Your task to perform on an android device: change the upload size in google photos Image 0: 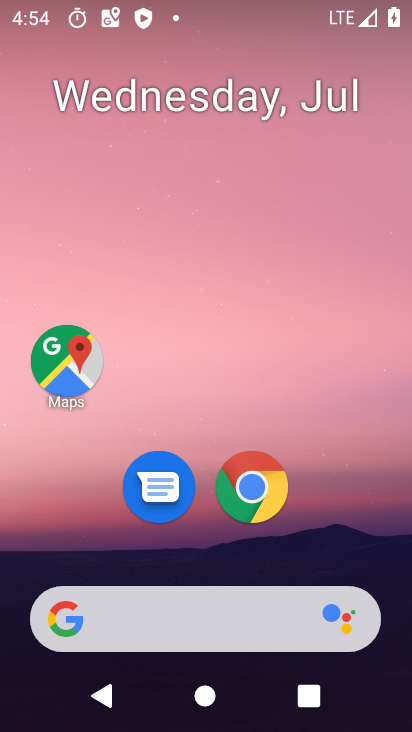
Step 0: drag from (180, 588) to (220, 72)
Your task to perform on an android device: change the upload size in google photos Image 1: 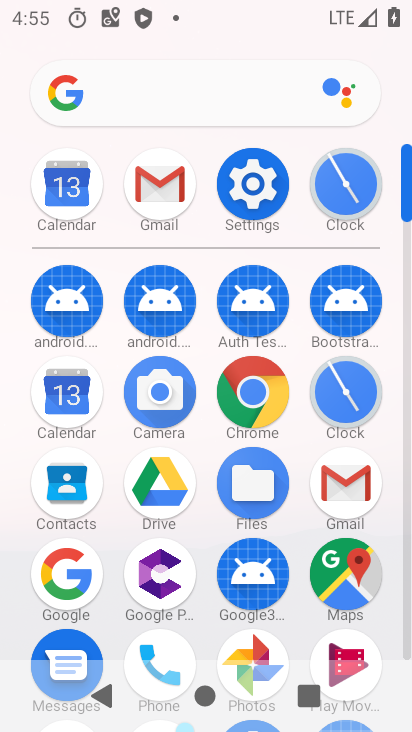
Step 1: click (247, 644)
Your task to perform on an android device: change the upload size in google photos Image 2: 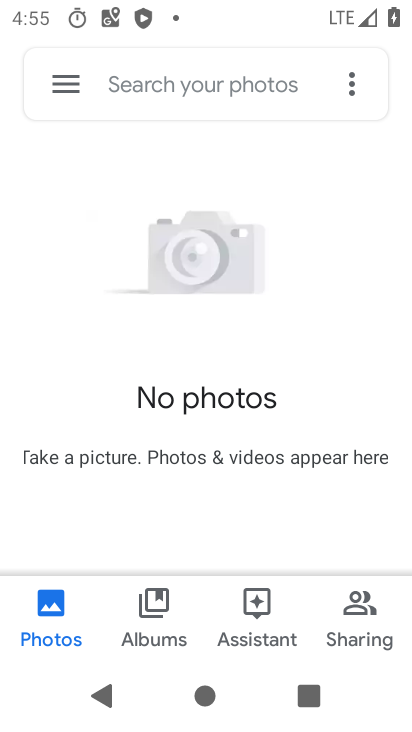
Step 2: click (46, 100)
Your task to perform on an android device: change the upload size in google photos Image 3: 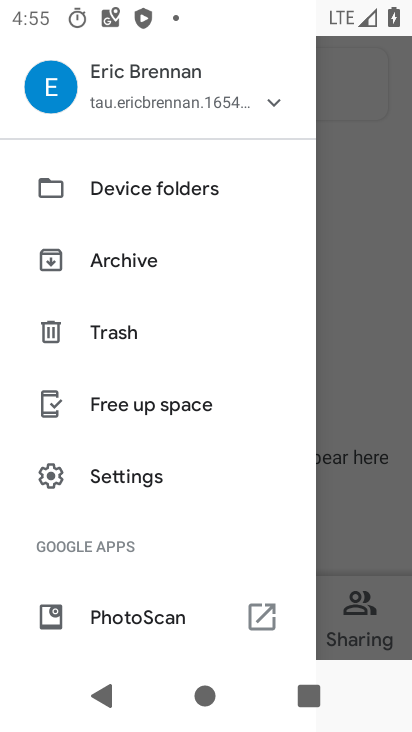
Step 3: click (142, 485)
Your task to perform on an android device: change the upload size in google photos Image 4: 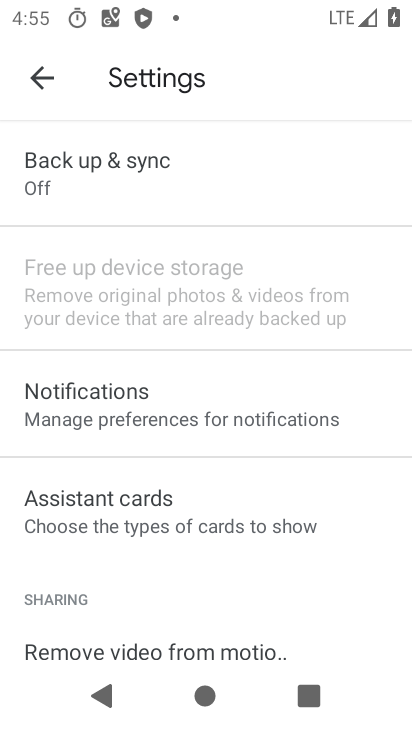
Step 4: drag from (220, 204) to (272, 212)
Your task to perform on an android device: change the upload size in google photos Image 5: 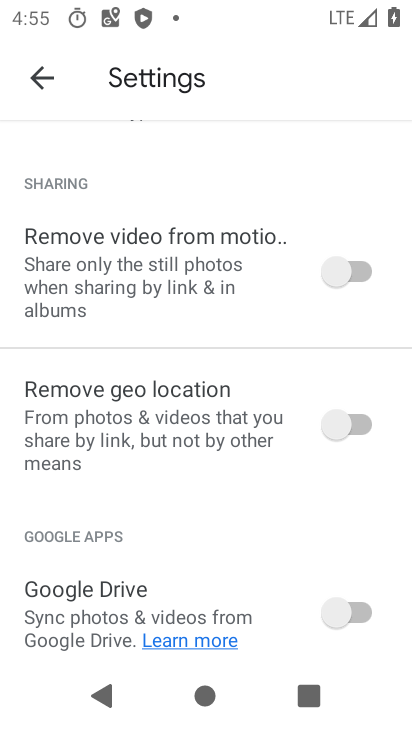
Step 5: drag from (272, 232) to (207, 657)
Your task to perform on an android device: change the upload size in google photos Image 6: 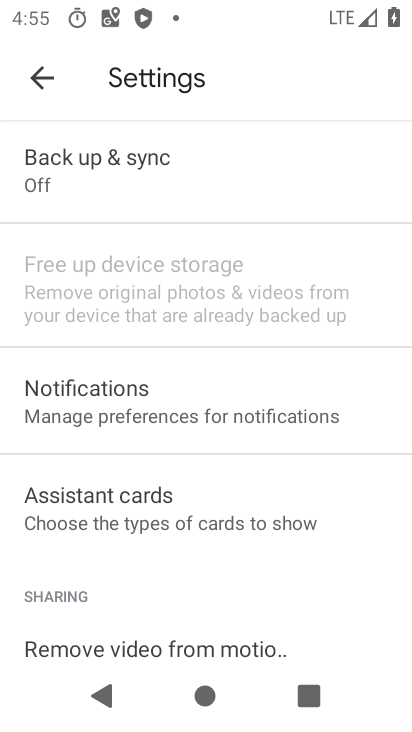
Step 6: drag from (188, 563) to (283, 58)
Your task to perform on an android device: change the upload size in google photos Image 7: 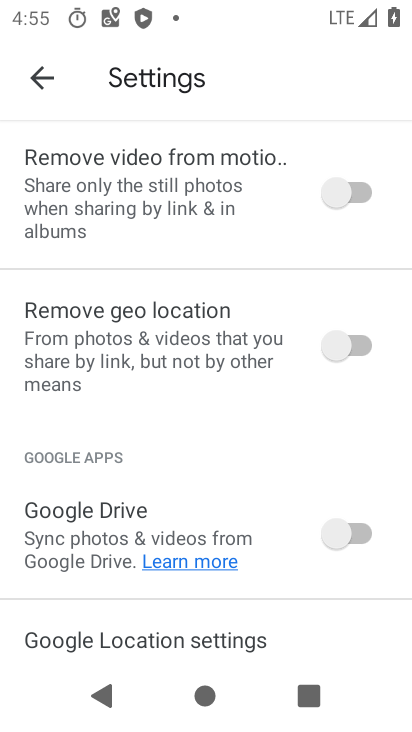
Step 7: drag from (156, 497) to (241, 13)
Your task to perform on an android device: change the upload size in google photos Image 8: 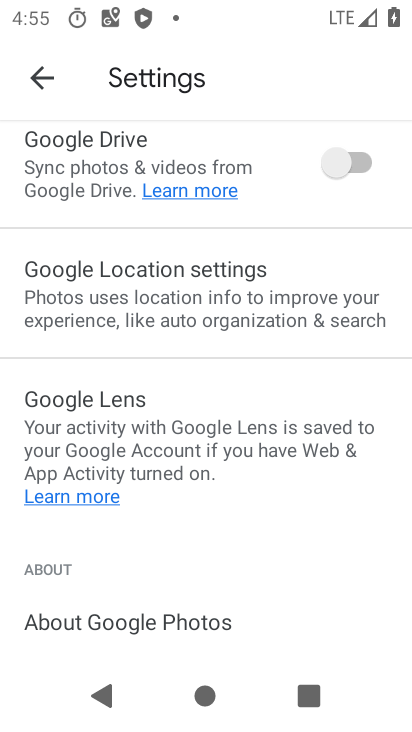
Step 8: drag from (185, 535) to (260, 16)
Your task to perform on an android device: change the upload size in google photos Image 9: 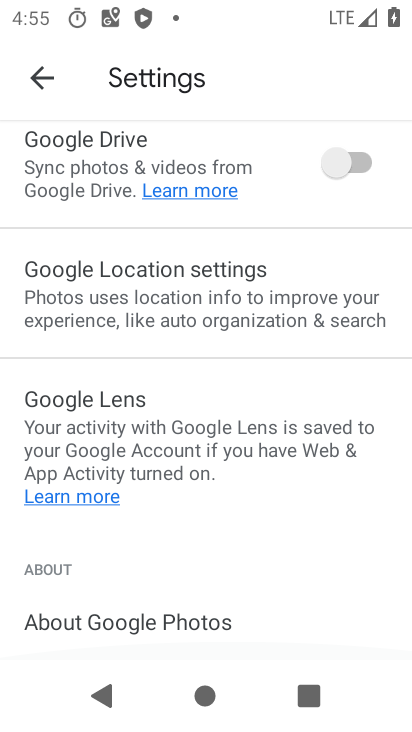
Step 9: click (49, 63)
Your task to perform on an android device: change the upload size in google photos Image 10: 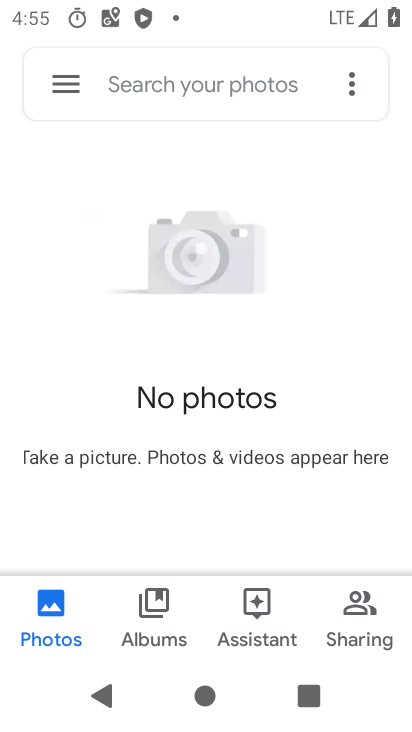
Step 10: click (64, 84)
Your task to perform on an android device: change the upload size in google photos Image 11: 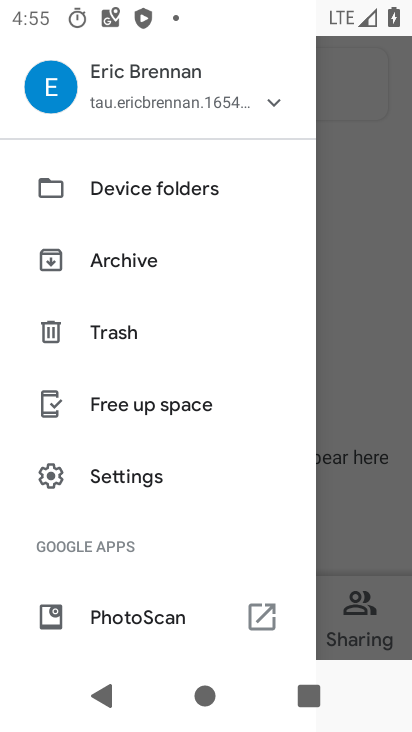
Step 11: click (134, 484)
Your task to perform on an android device: change the upload size in google photos Image 12: 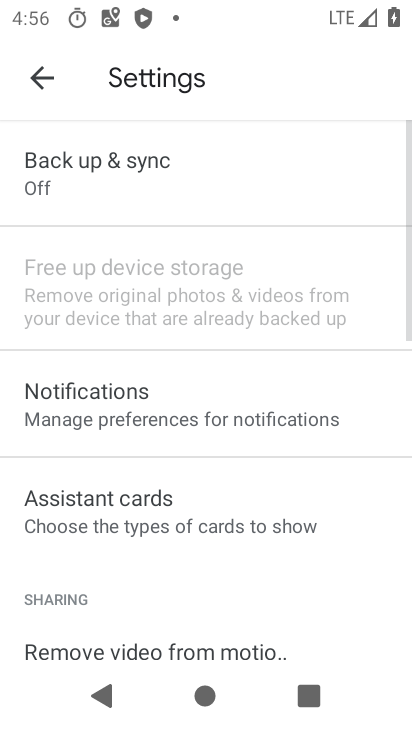
Step 12: drag from (148, 233) to (149, 665)
Your task to perform on an android device: change the upload size in google photos Image 13: 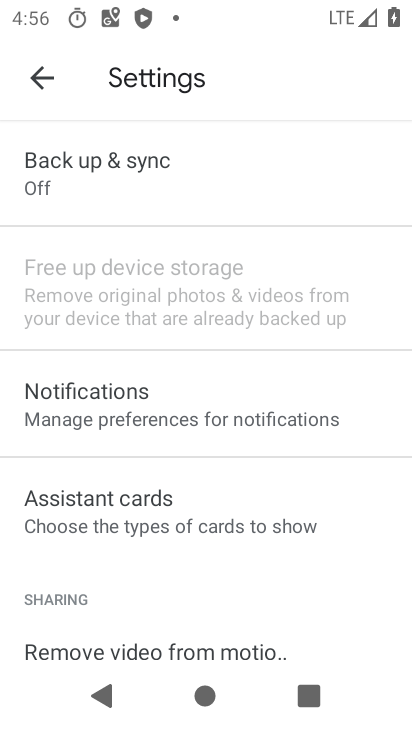
Step 13: drag from (188, 236) to (153, 649)
Your task to perform on an android device: change the upload size in google photos Image 14: 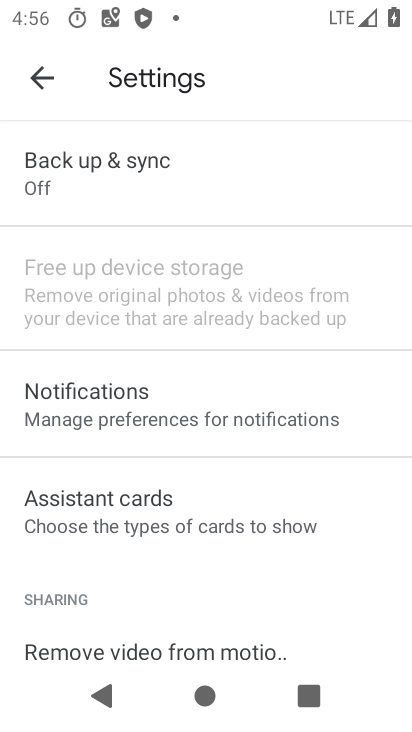
Step 14: click (143, 191)
Your task to perform on an android device: change the upload size in google photos Image 15: 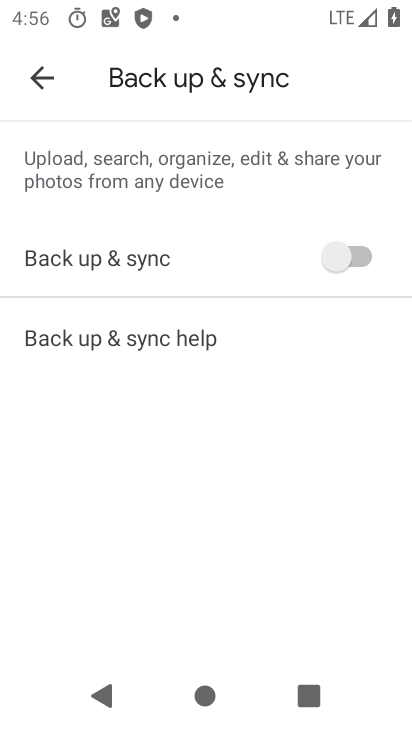
Step 15: task complete